Your task to perform on an android device: Go to Yahoo.com Image 0: 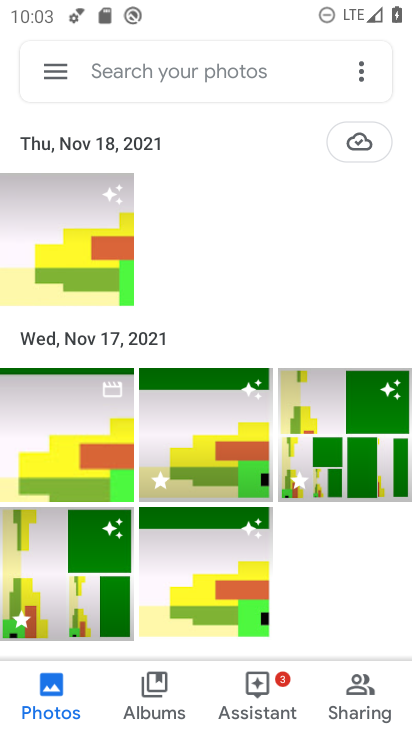
Step 0: press home button
Your task to perform on an android device: Go to Yahoo.com Image 1: 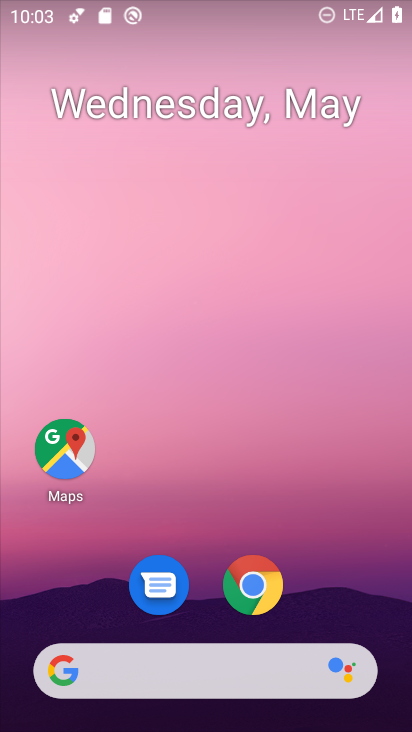
Step 1: click (265, 679)
Your task to perform on an android device: Go to Yahoo.com Image 2: 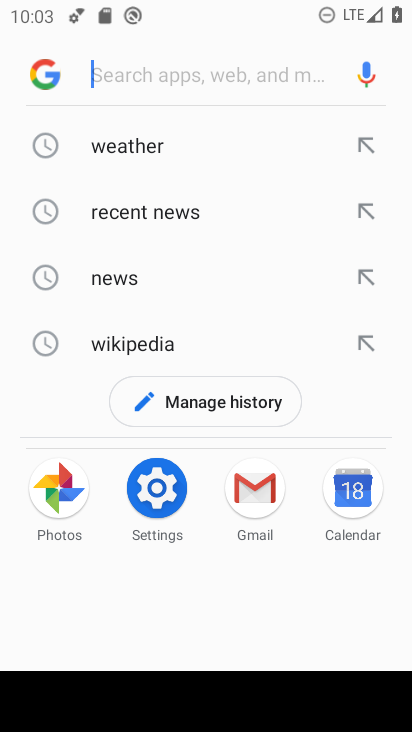
Step 2: type "yahoo.com"
Your task to perform on an android device: Go to Yahoo.com Image 3: 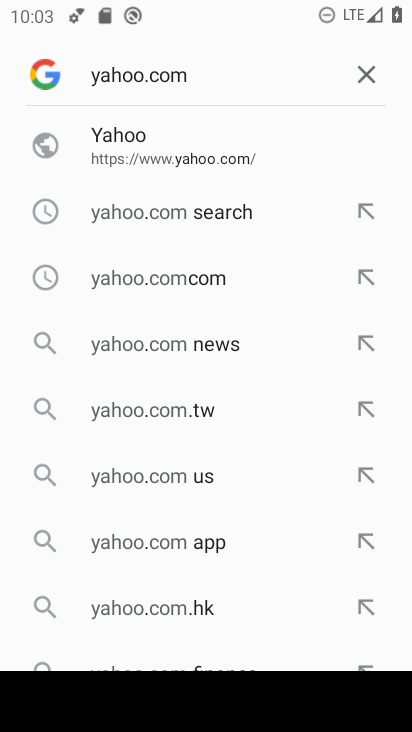
Step 3: click (119, 131)
Your task to perform on an android device: Go to Yahoo.com Image 4: 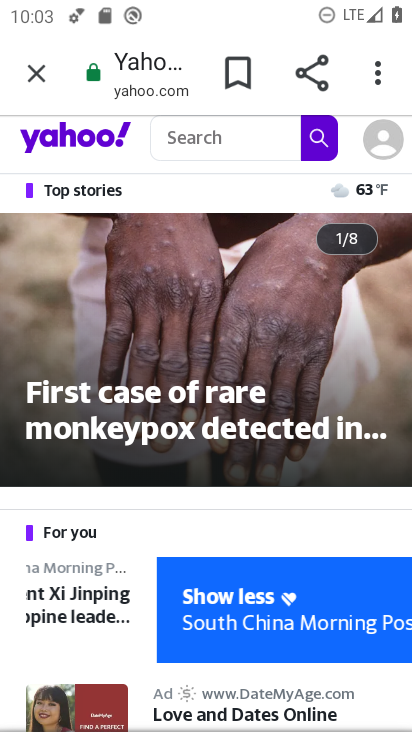
Step 4: task complete